Your task to perform on an android device: toggle airplane mode Image 0: 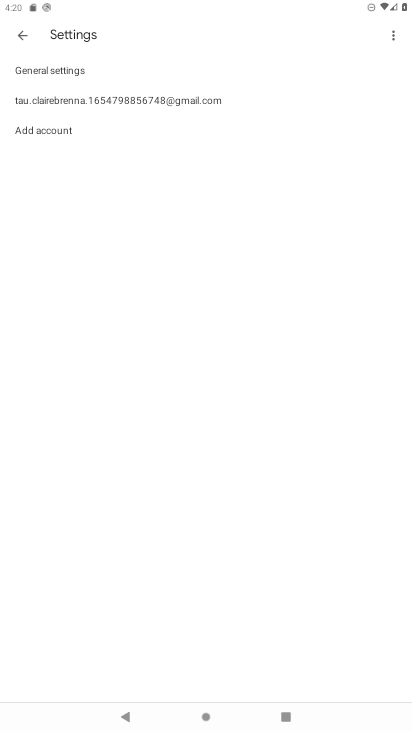
Step 0: press home button
Your task to perform on an android device: toggle airplane mode Image 1: 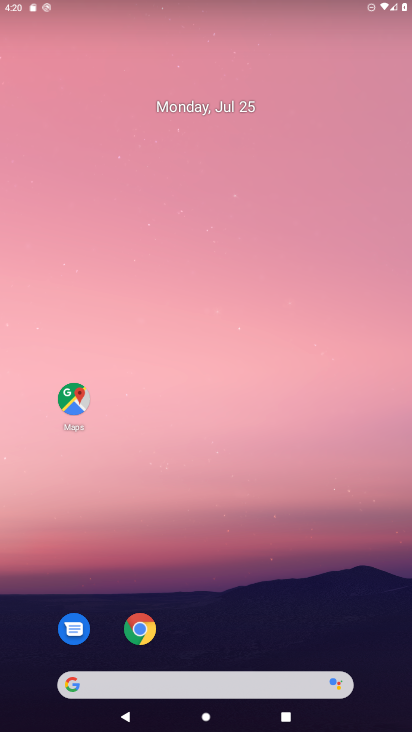
Step 1: drag from (249, 554) to (295, 57)
Your task to perform on an android device: toggle airplane mode Image 2: 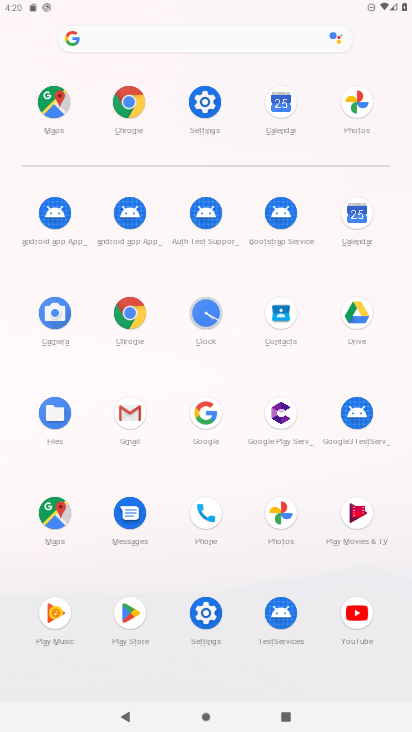
Step 2: click (211, 93)
Your task to perform on an android device: toggle airplane mode Image 3: 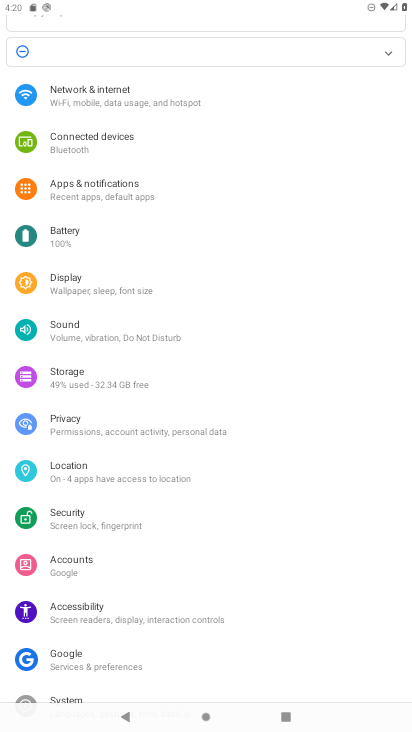
Step 3: click (142, 112)
Your task to perform on an android device: toggle airplane mode Image 4: 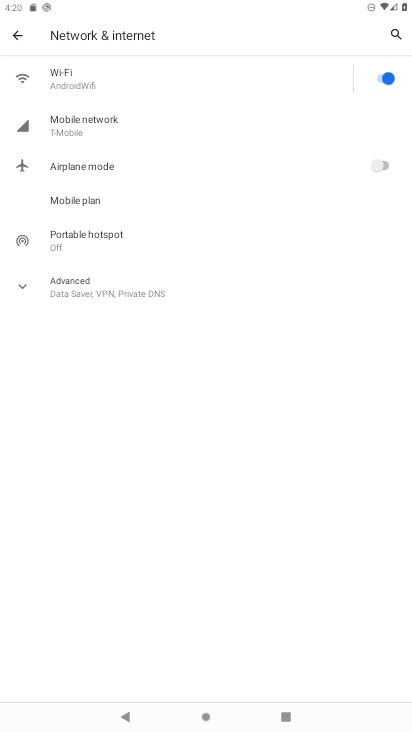
Step 4: click (112, 173)
Your task to perform on an android device: toggle airplane mode Image 5: 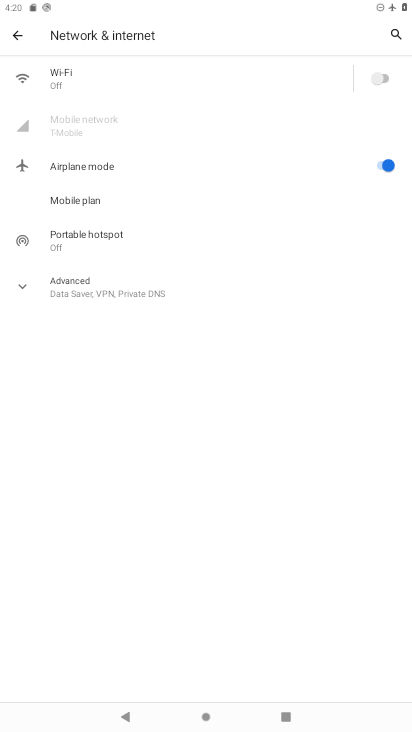
Step 5: task complete